Your task to perform on an android device: uninstall "Adobe Acrobat Reader: Edit PDF" Image 0: 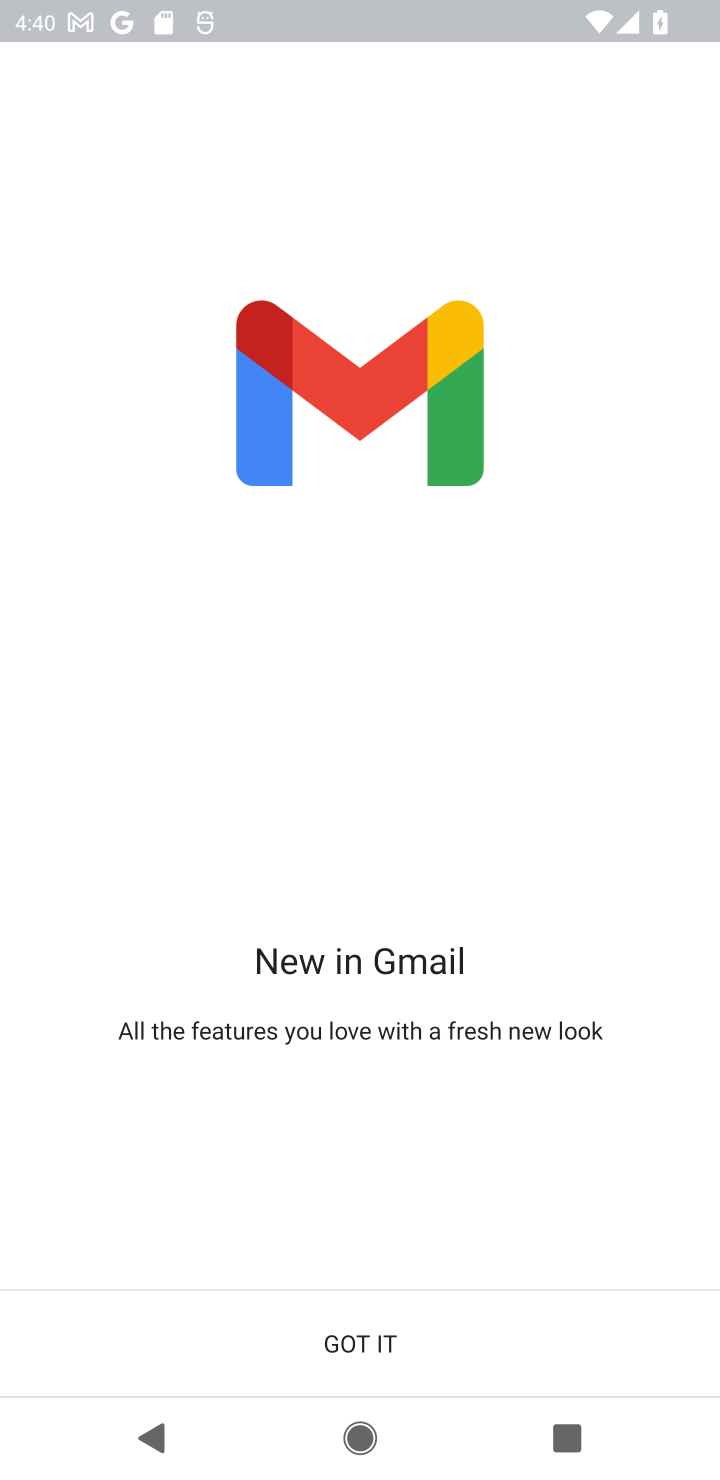
Step 0: press home button
Your task to perform on an android device: uninstall "Adobe Acrobat Reader: Edit PDF" Image 1: 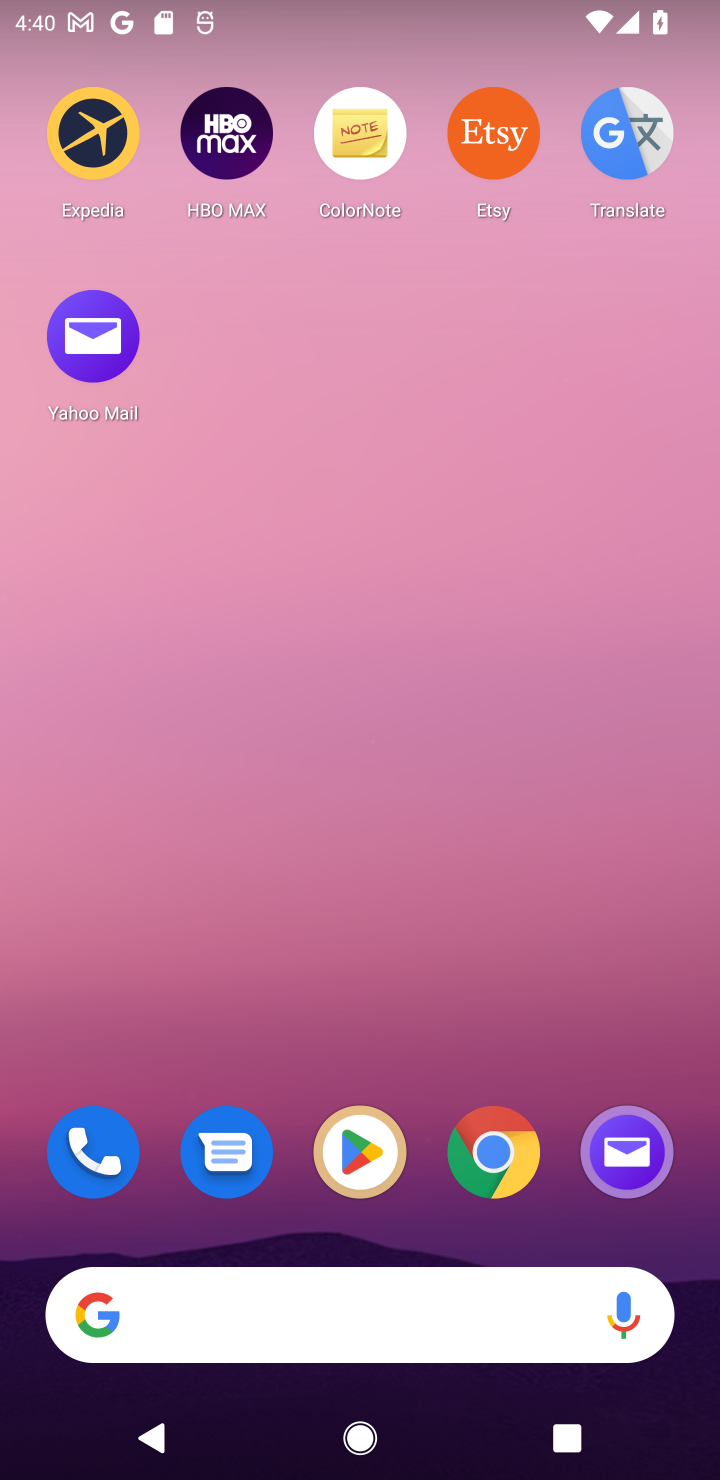
Step 1: click (355, 1146)
Your task to perform on an android device: uninstall "Adobe Acrobat Reader: Edit PDF" Image 2: 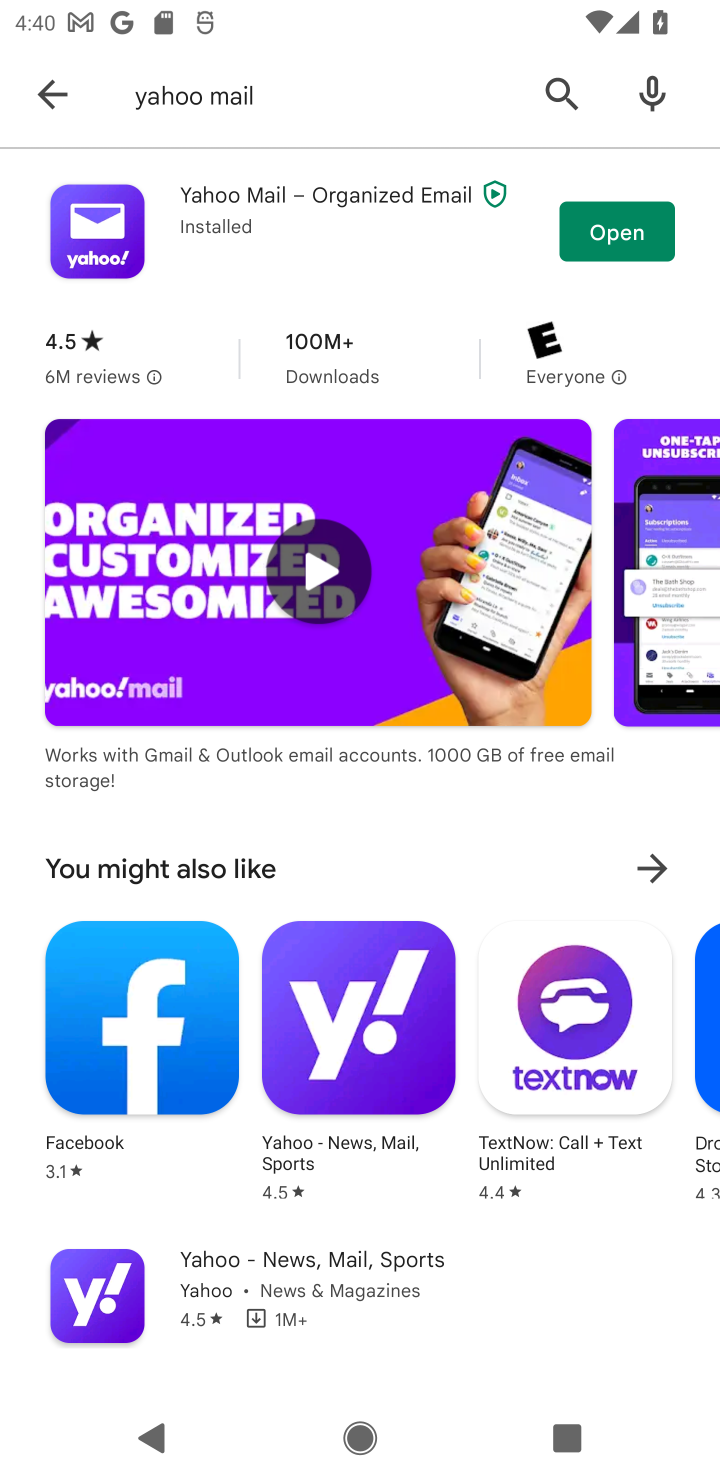
Step 2: click (64, 103)
Your task to perform on an android device: uninstall "Adobe Acrobat Reader: Edit PDF" Image 3: 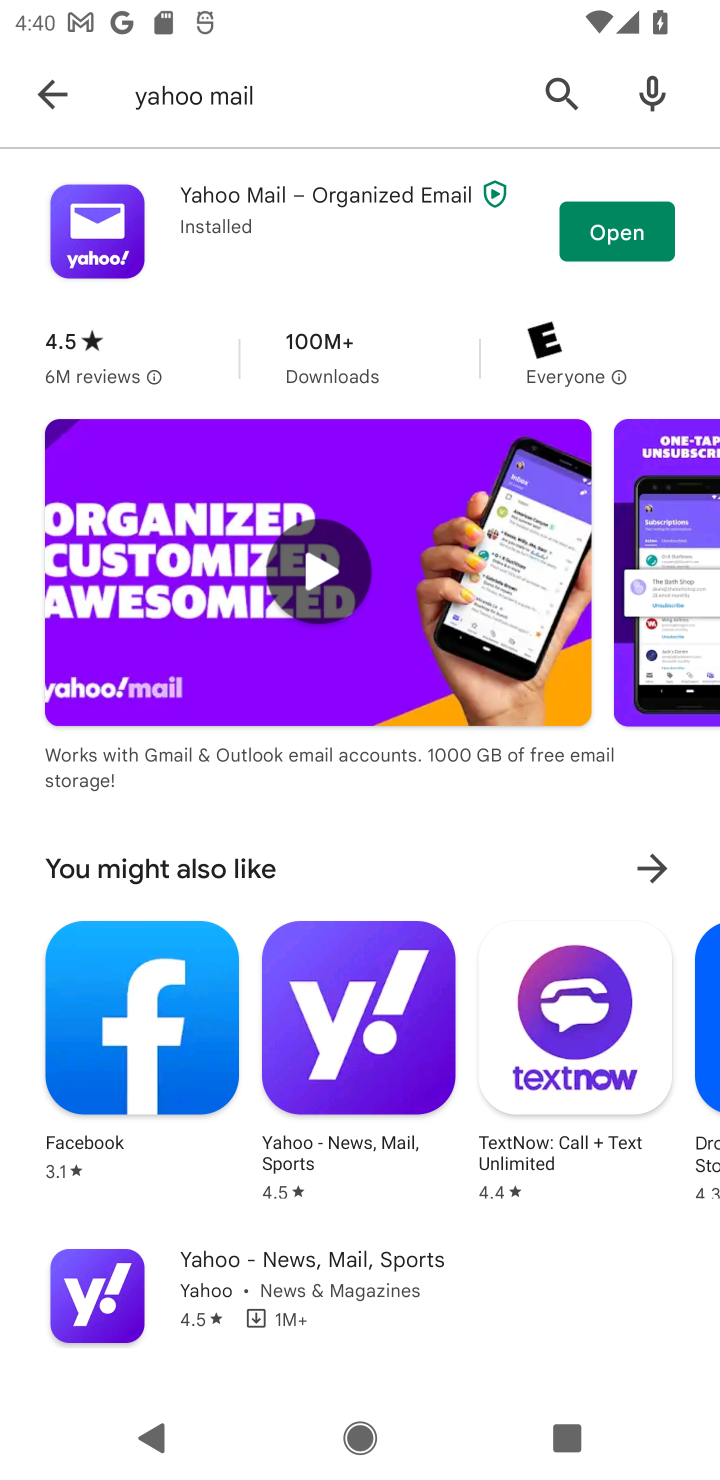
Step 3: click (48, 98)
Your task to perform on an android device: uninstall "Adobe Acrobat Reader: Edit PDF" Image 4: 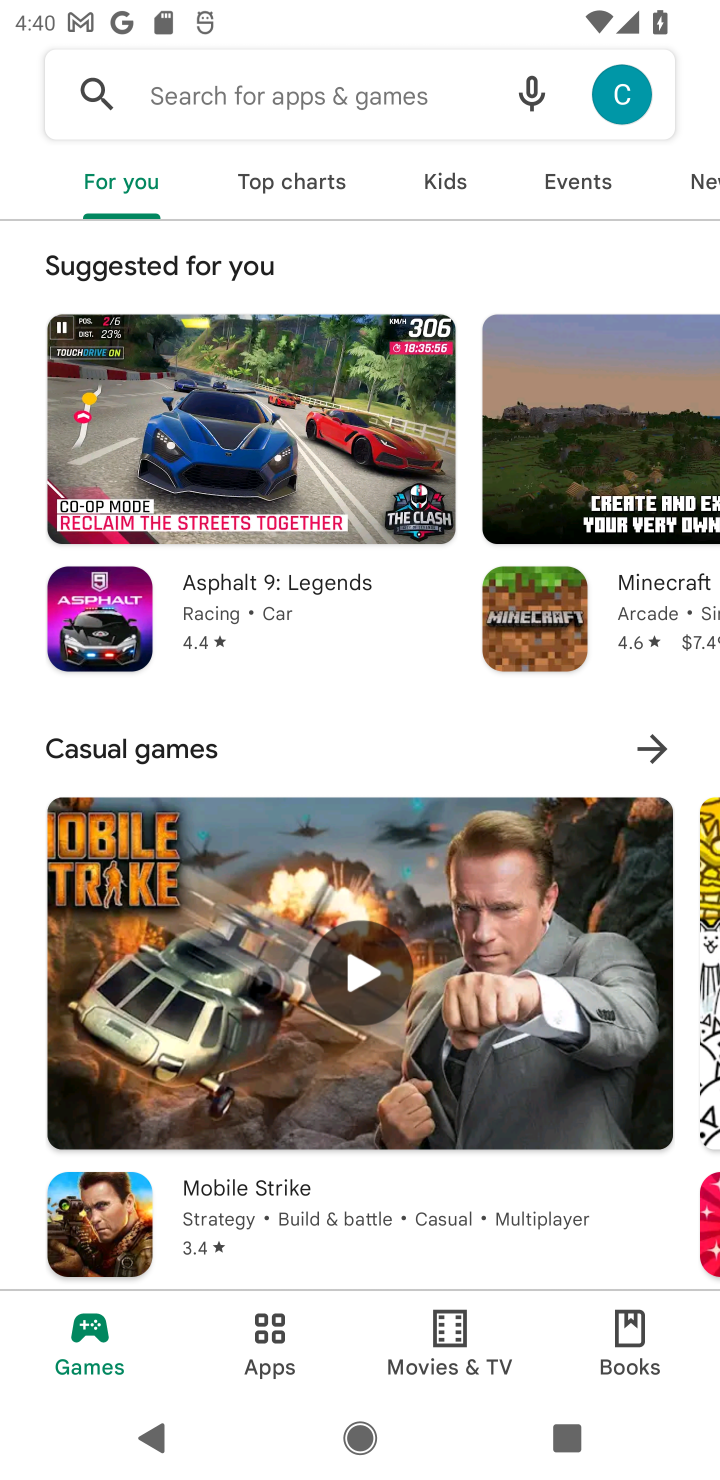
Step 4: click (175, 77)
Your task to perform on an android device: uninstall "Adobe Acrobat Reader: Edit PDF" Image 5: 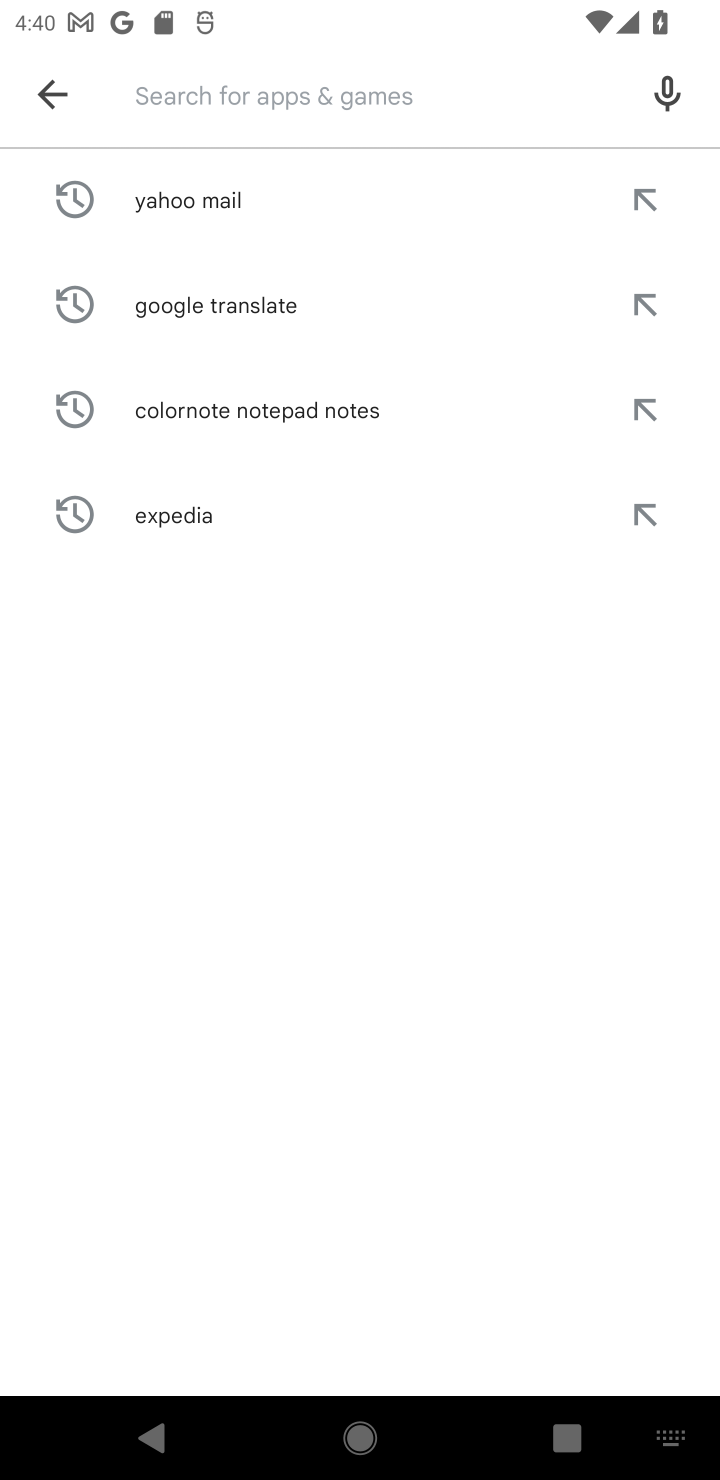
Step 5: type "dobe Acrobat Reader: Edit PDF"
Your task to perform on an android device: uninstall "Adobe Acrobat Reader: Edit PDF" Image 6: 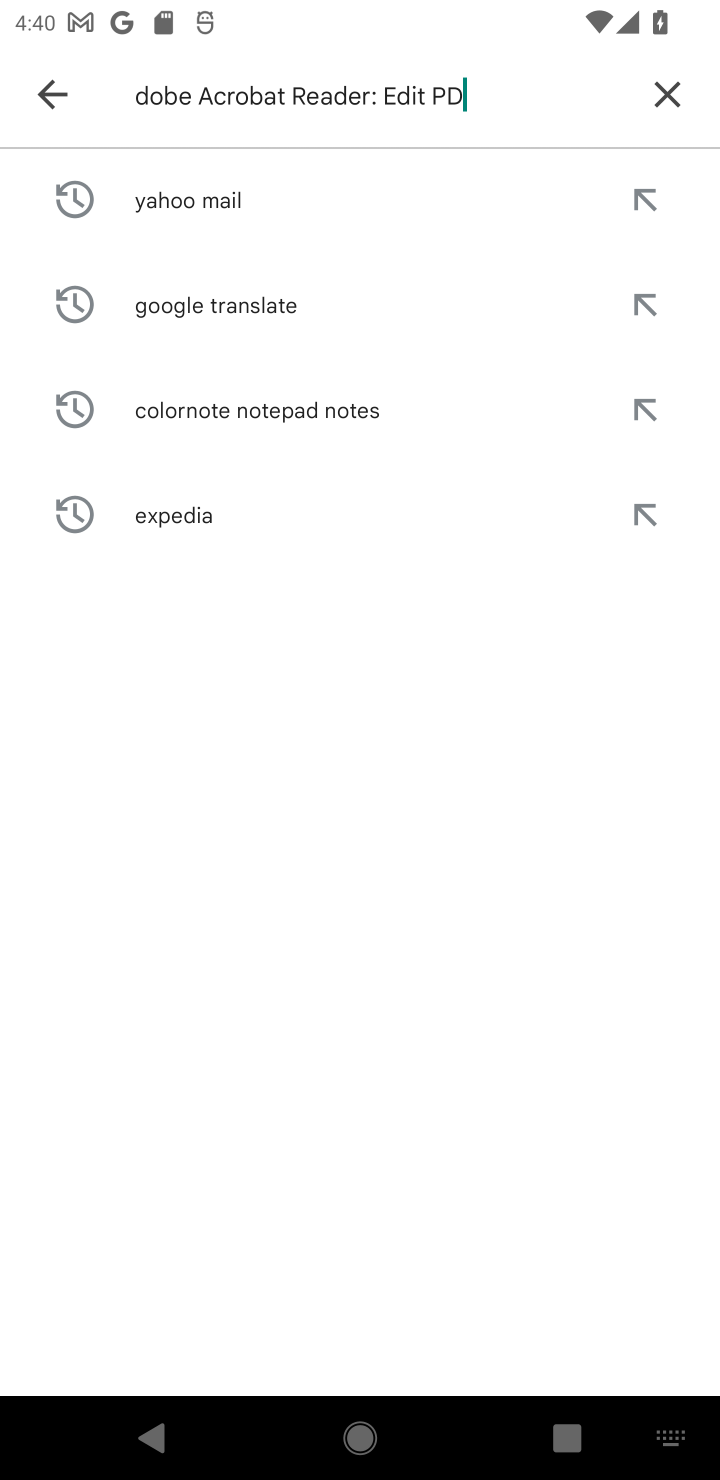
Step 6: type ""
Your task to perform on an android device: uninstall "Adobe Acrobat Reader: Edit PDF" Image 7: 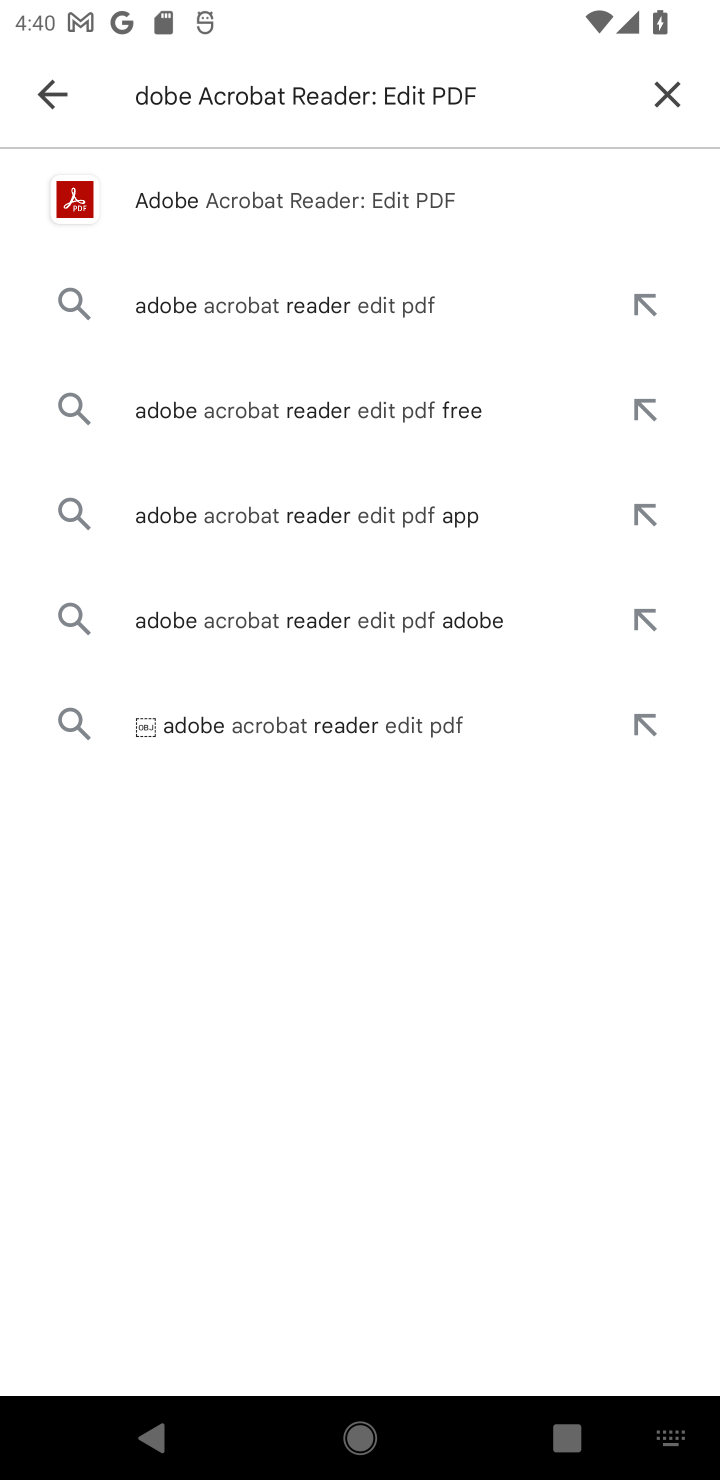
Step 7: click (189, 208)
Your task to perform on an android device: uninstall "Adobe Acrobat Reader: Edit PDF" Image 8: 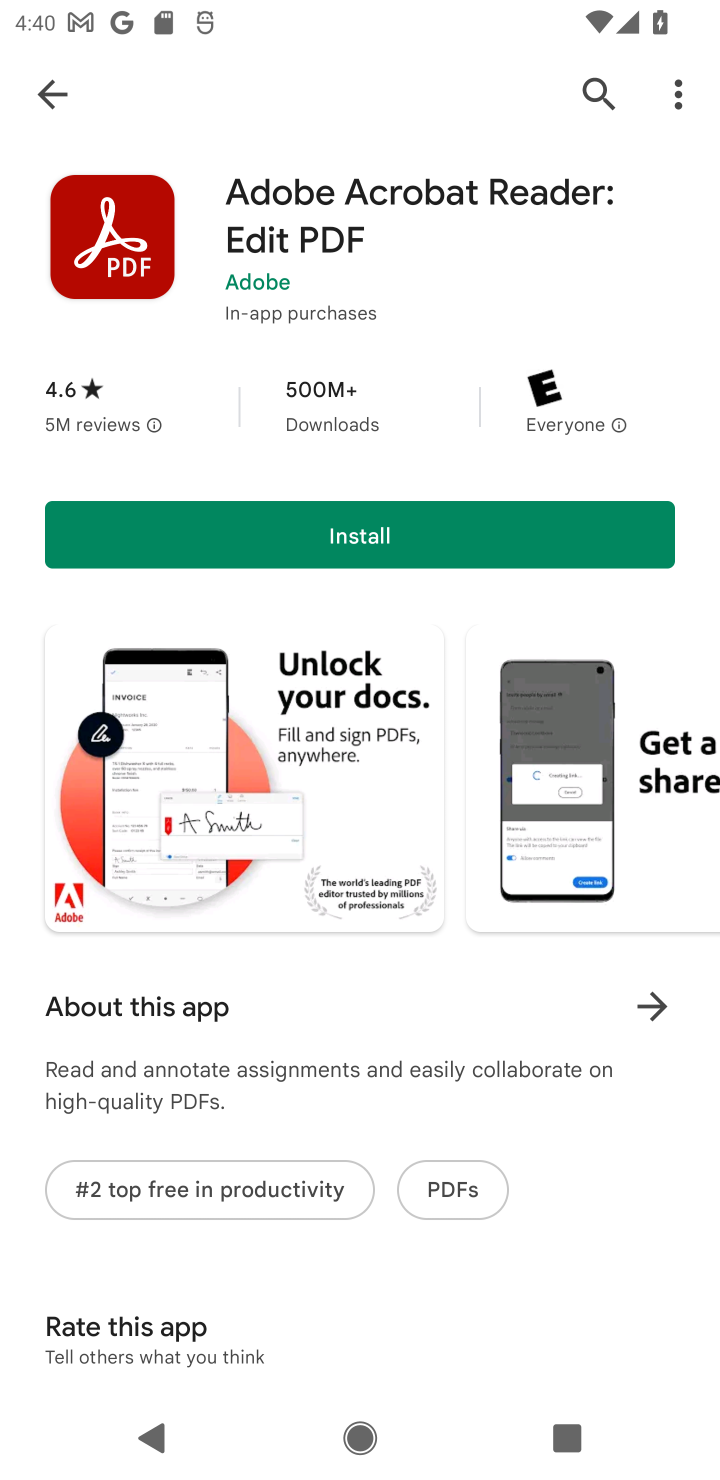
Step 8: task complete